Your task to perform on an android device: clear all cookies in the chrome app Image 0: 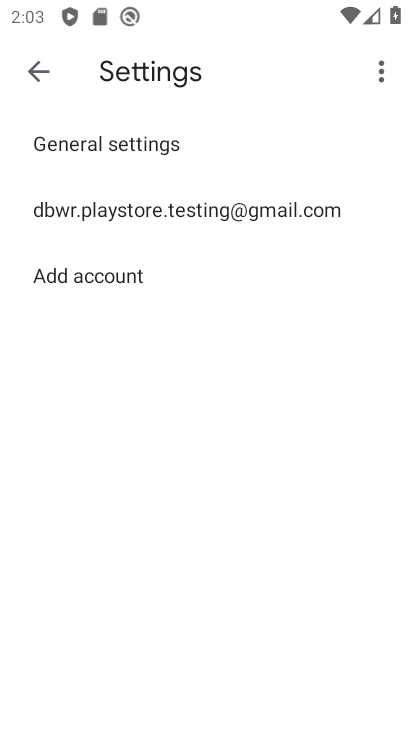
Step 0: press home button
Your task to perform on an android device: clear all cookies in the chrome app Image 1: 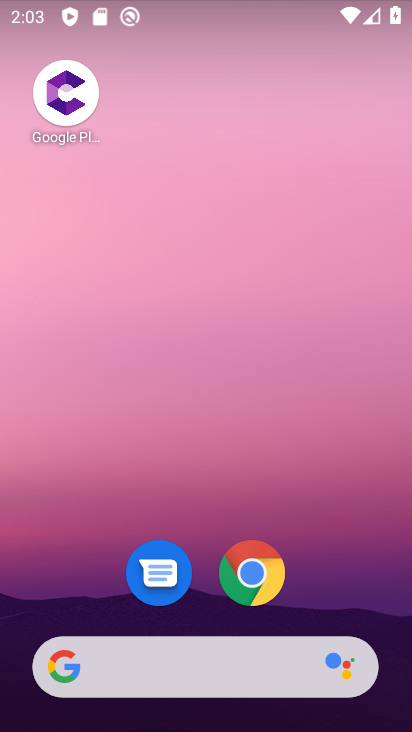
Step 1: drag from (181, 662) to (314, 169)
Your task to perform on an android device: clear all cookies in the chrome app Image 2: 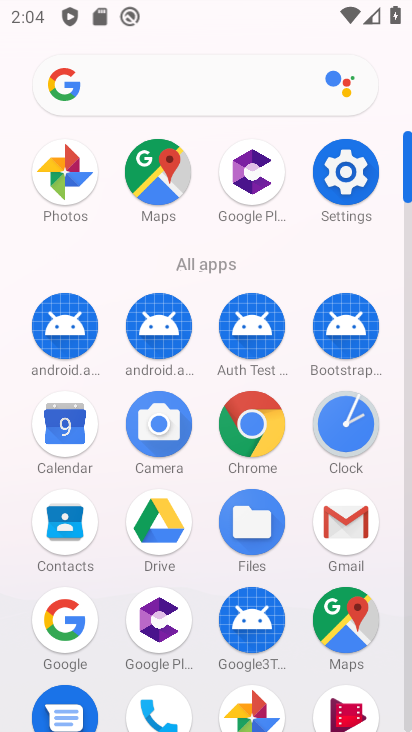
Step 2: click (244, 430)
Your task to perform on an android device: clear all cookies in the chrome app Image 3: 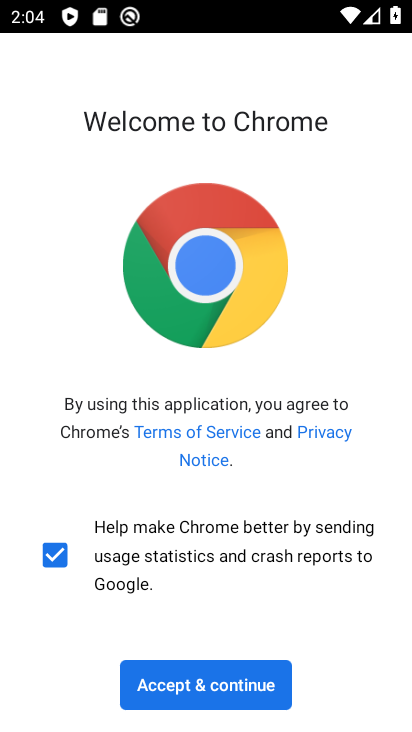
Step 3: click (240, 675)
Your task to perform on an android device: clear all cookies in the chrome app Image 4: 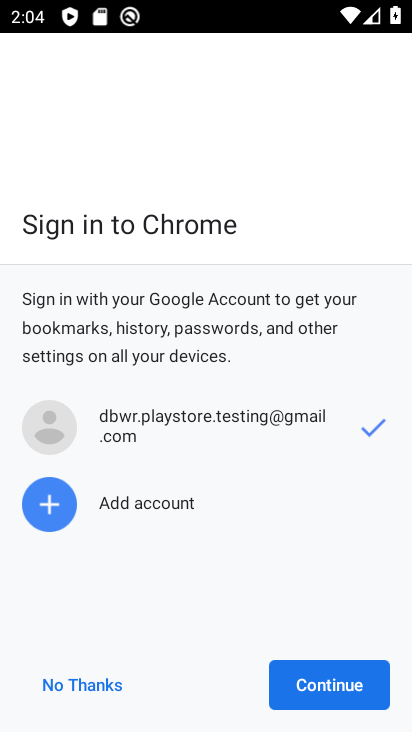
Step 4: click (300, 690)
Your task to perform on an android device: clear all cookies in the chrome app Image 5: 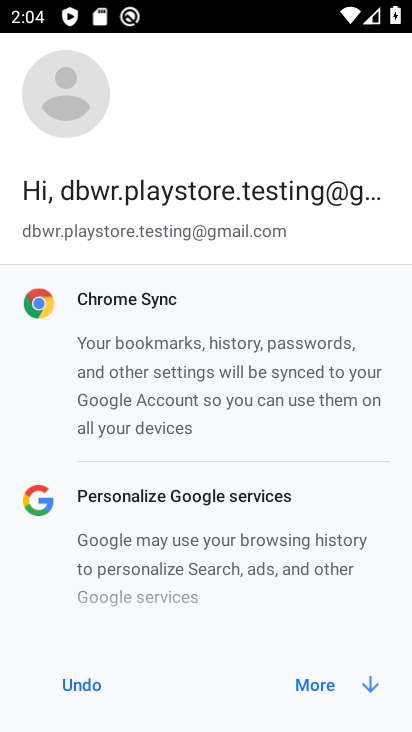
Step 5: click (301, 690)
Your task to perform on an android device: clear all cookies in the chrome app Image 6: 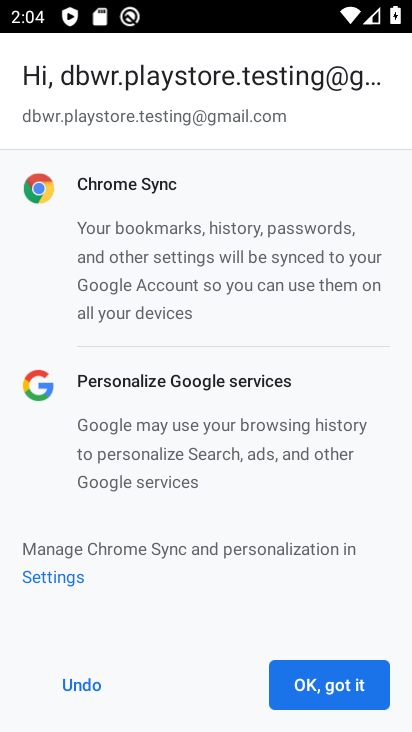
Step 6: click (324, 690)
Your task to perform on an android device: clear all cookies in the chrome app Image 7: 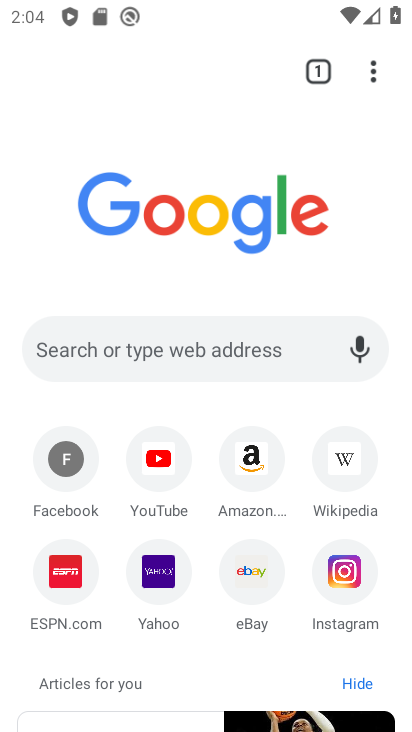
Step 7: drag from (372, 73) to (117, 593)
Your task to perform on an android device: clear all cookies in the chrome app Image 8: 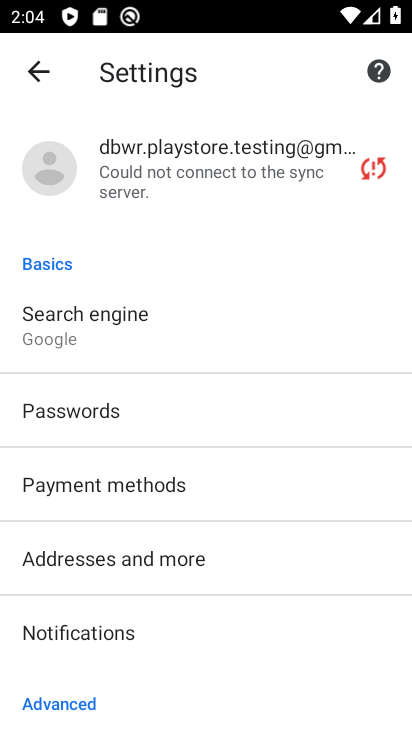
Step 8: drag from (147, 665) to (349, 156)
Your task to perform on an android device: clear all cookies in the chrome app Image 9: 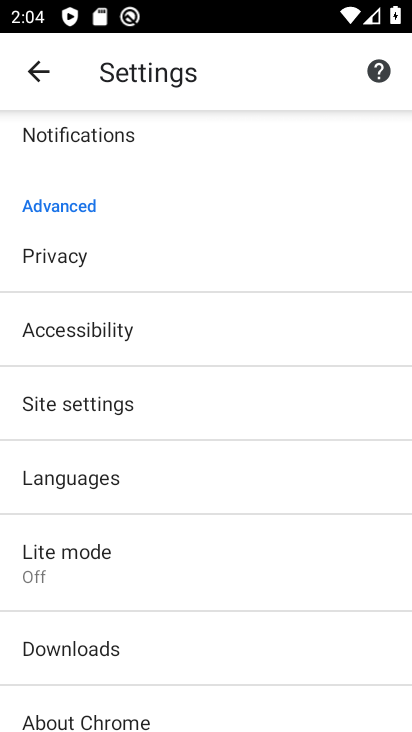
Step 9: click (70, 255)
Your task to perform on an android device: clear all cookies in the chrome app Image 10: 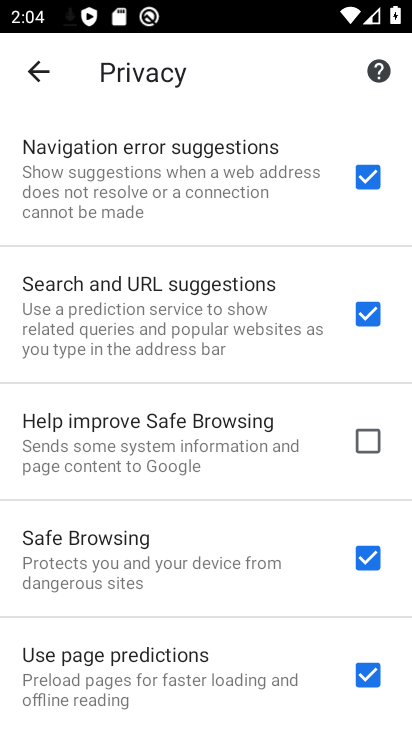
Step 10: drag from (169, 639) to (322, 66)
Your task to perform on an android device: clear all cookies in the chrome app Image 11: 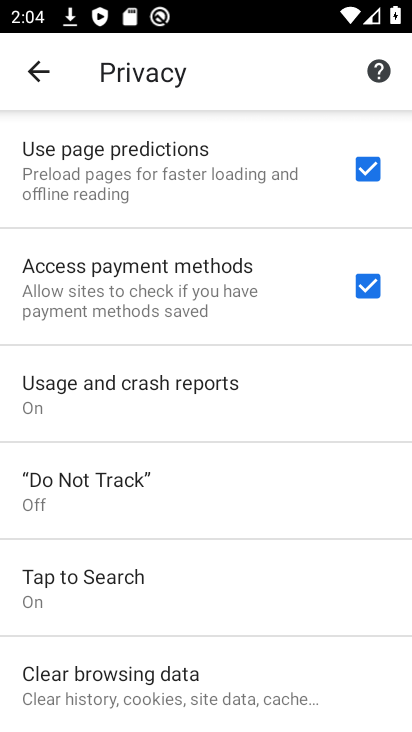
Step 11: drag from (203, 624) to (315, 81)
Your task to perform on an android device: clear all cookies in the chrome app Image 12: 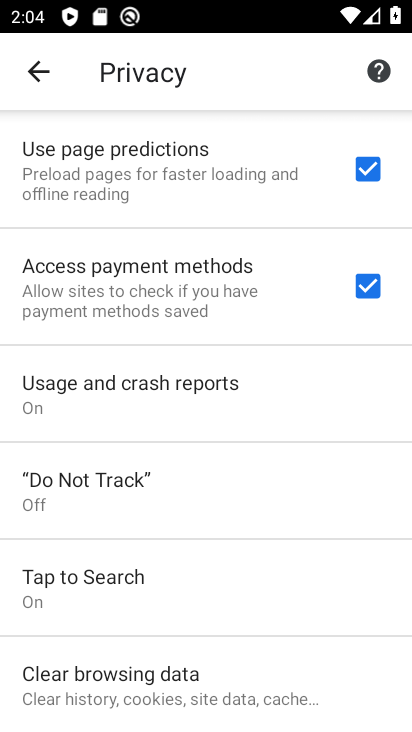
Step 12: click (185, 677)
Your task to perform on an android device: clear all cookies in the chrome app Image 13: 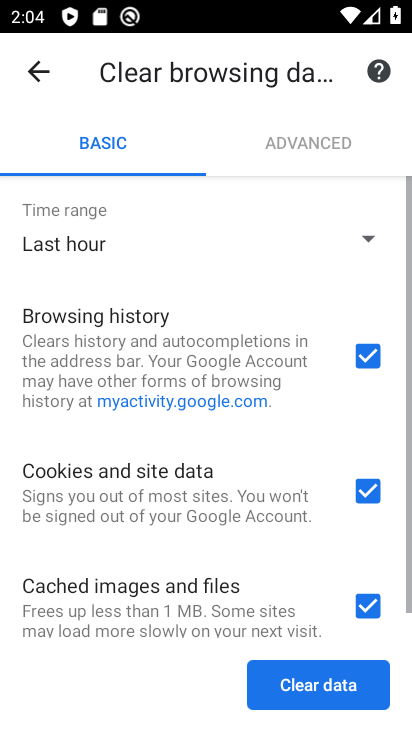
Step 13: click (372, 359)
Your task to perform on an android device: clear all cookies in the chrome app Image 14: 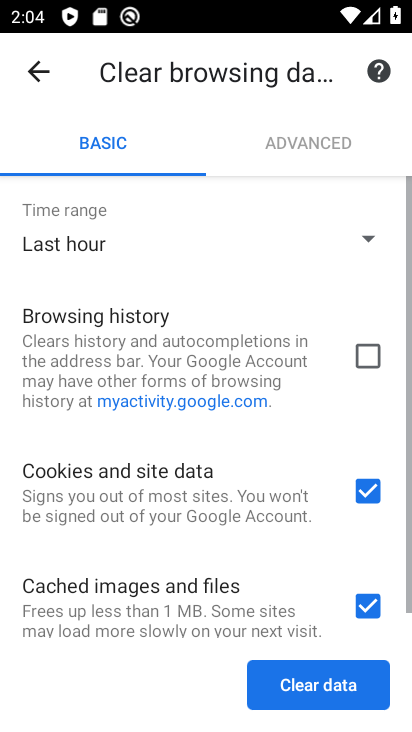
Step 14: click (377, 612)
Your task to perform on an android device: clear all cookies in the chrome app Image 15: 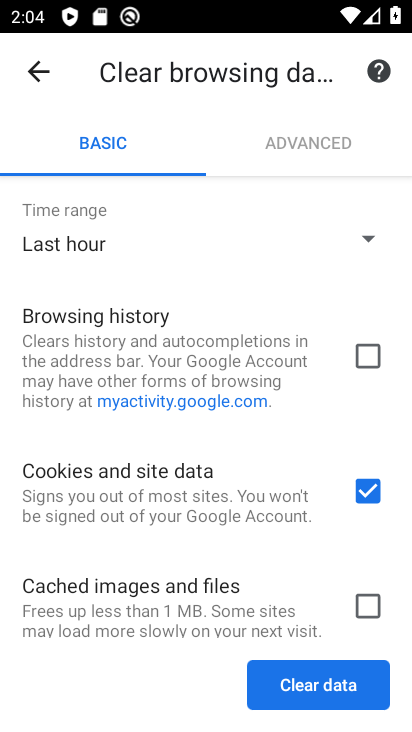
Step 15: click (303, 685)
Your task to perform on an android device: clear all cookies in the chrome app Image 16: 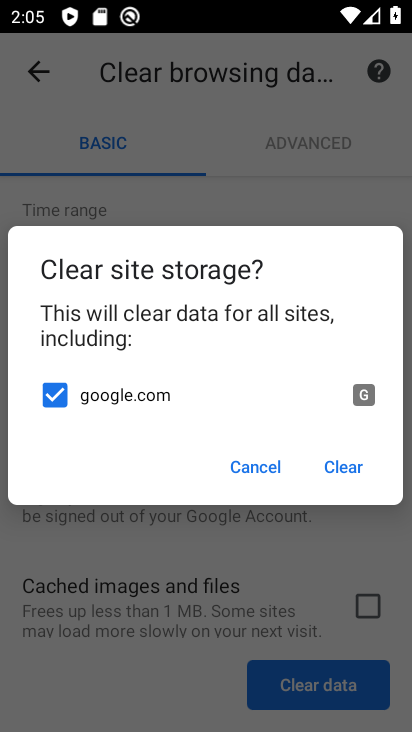
Step 16: click (343, 463)
Your task to perform on an android device: clear all cookies in the chrome app Image 17: 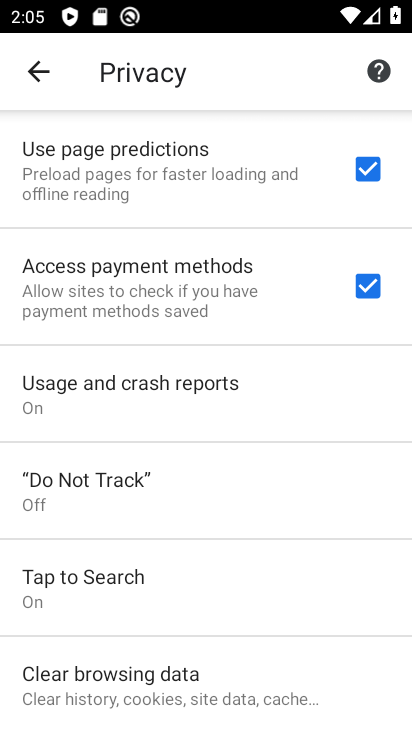
Step 17: task complete